Your task to perform on an android device: Go to Wikipedia Image 0: 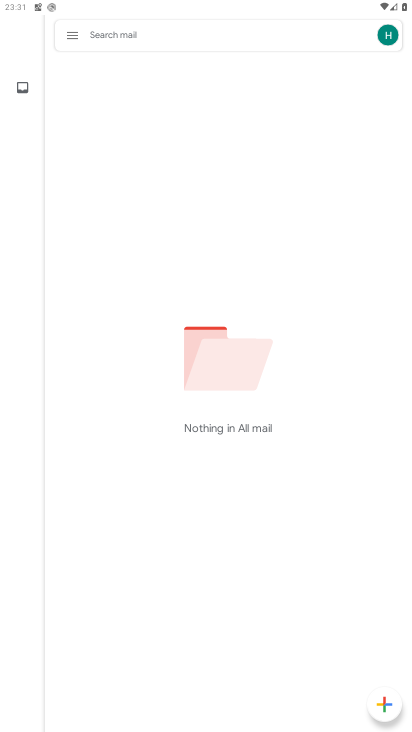
Step 0: press home button
Your task to perform on an android device: Go to Wikipedia Image 1: 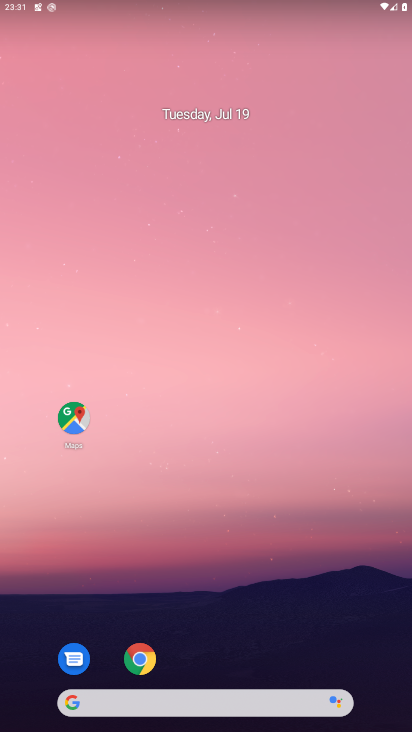
Step 1: click (153, 657)
Your task to perform on an android device: Go to Wikipedia Image 2: 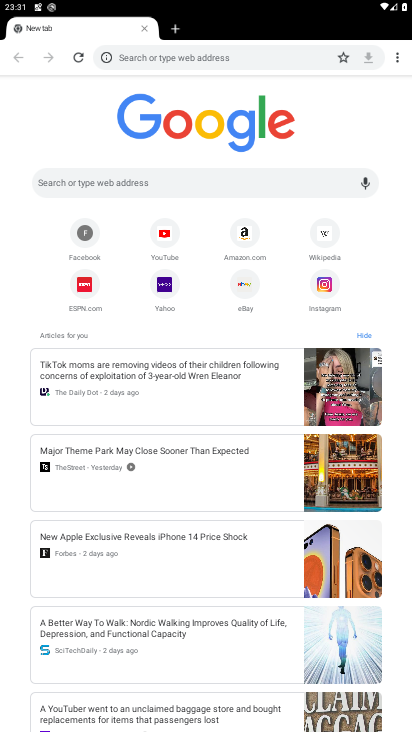
Step 2: click (320, 235)
Your task to perform on an android device: Go to Wikipedia Image 3: 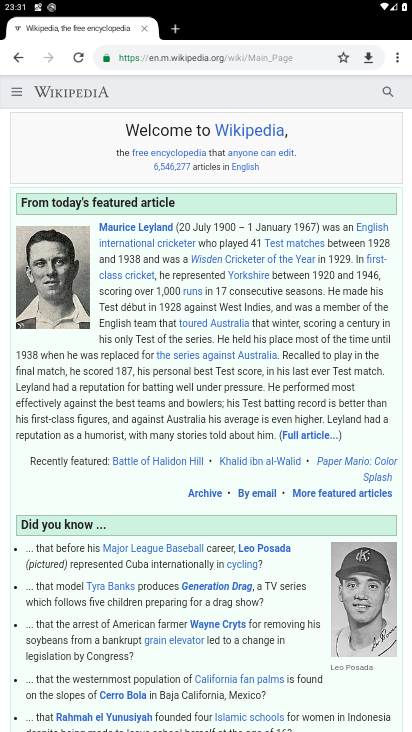
Step 3: task complete